Your task to perform on an android device: turn on sleep mode Image 0: 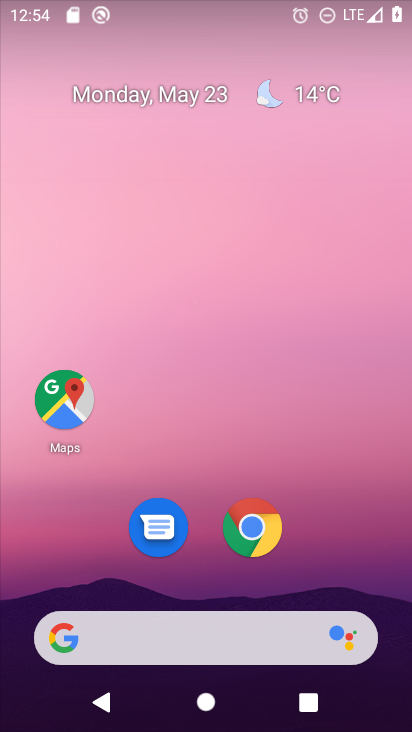
Step 0: drag from (381, 587) to (333, 180)
Your task to perform on an android device: turn on sleep mode Image 1: 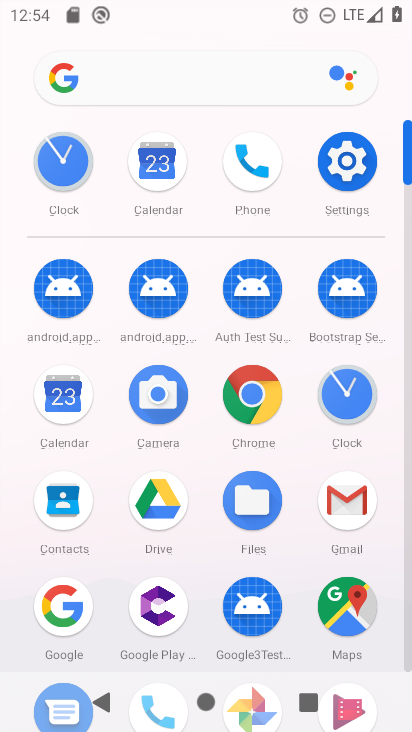
Step 1: click (349, 200)
Your task to perform on an android device: turn on sleep mode Image 2: 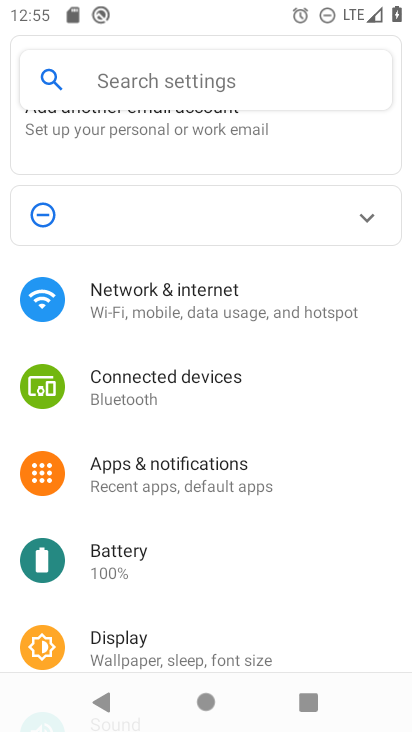
Step 2: drag from (241, 541) to (241, 466)
Your task to perform on an android device: turn on sleep mode Image 3: 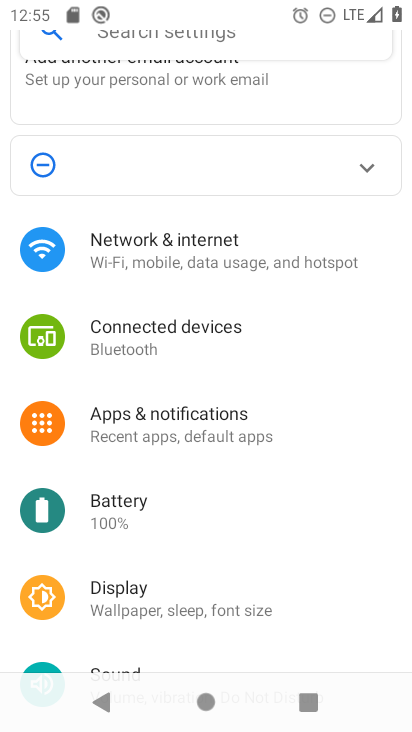
Step 3: click (240, 601)
Your task to perform on an android device: turn on sleep mode Image 4: 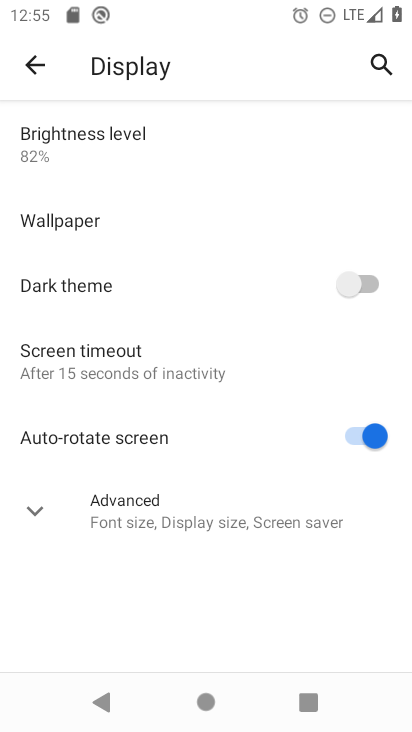
Step 4: click (138, 521)
Your task to perform on an android device: turn on sleep mode Image 5: 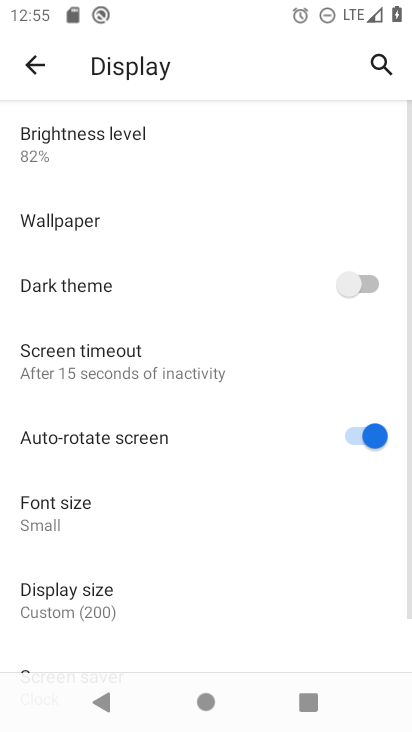
Step 5: click (138, 521)
Your task to perform on an android device: turn on sleep mode Image 6: 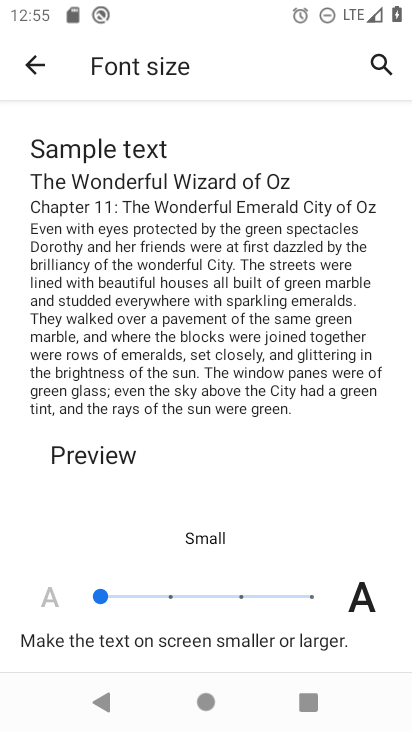
Step 6: task complete